Your task to perform on an android device: Open the stopwatch Image 0: 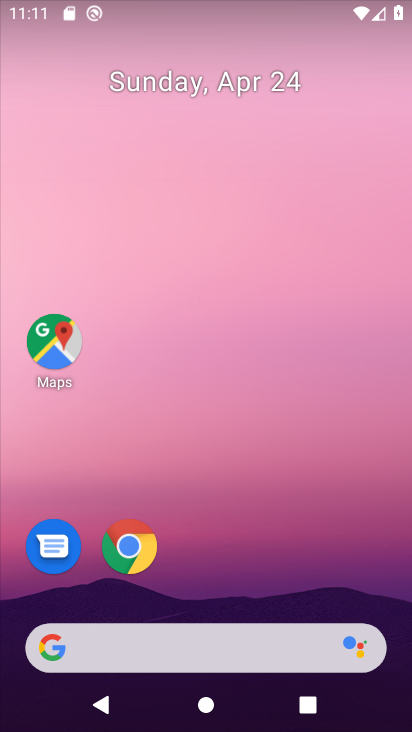
Step 0: drag from (195, 427) to (274, 5)
Your task to perform on an android device: Open the stopwatch Image 1: 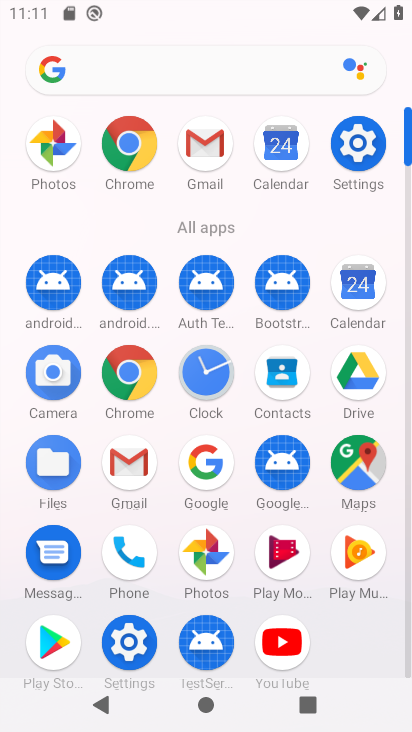
Step 1: click (205, 370)
Your task to perform on an android device: Open the stopwatch Image 2: 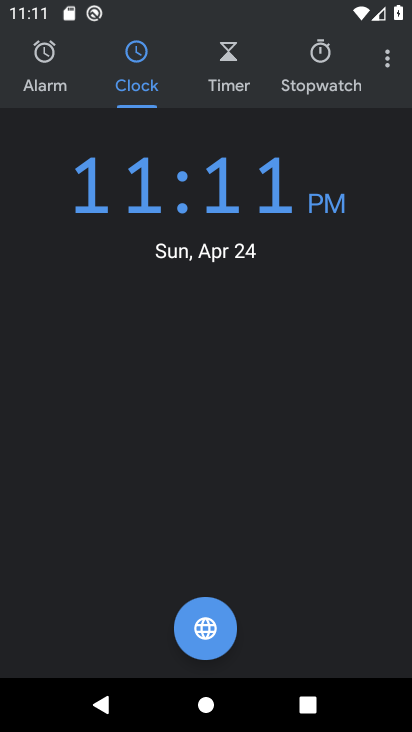
Step 2: click (325, 82)
Your task to perform on an android device: Open the stopwatch Image 3: 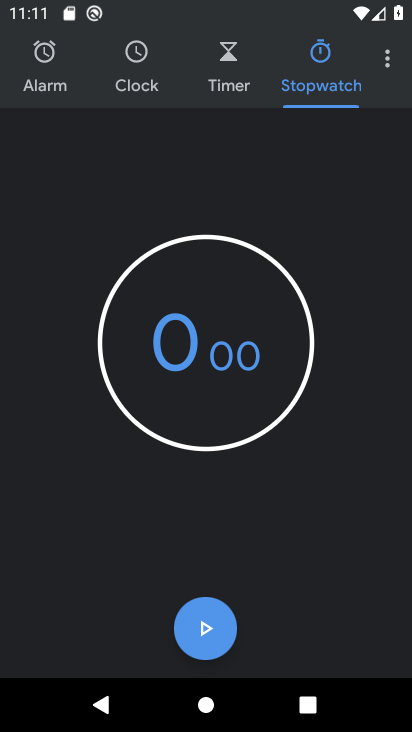
Step 3: task complete